Your task to perform on an android device: toggle notifications settings in the gmail app Image 0: 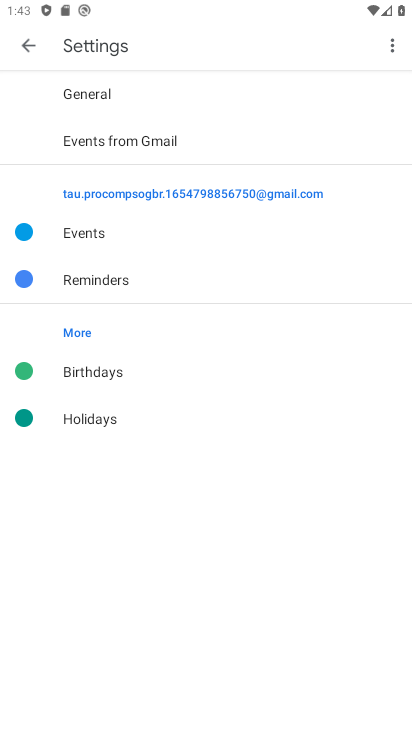
Step 0: press home button
Your task to perform on an android device: toggle notifications settings in the gmail app Image 1: 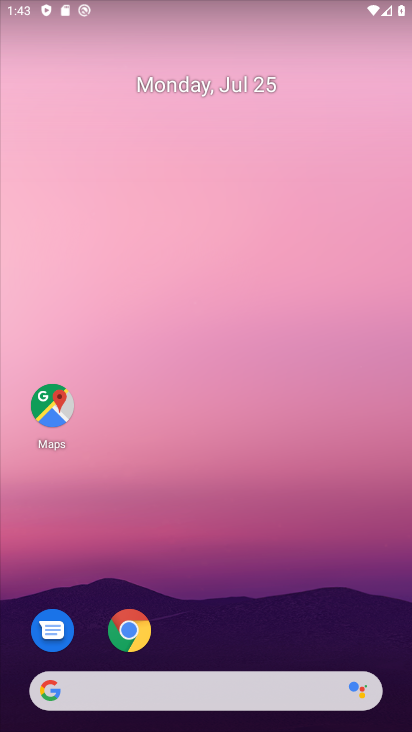
Step 1: click (237, 90)
Your task to perform on an android device: toggle notifications settings in the gmail app Image 2: 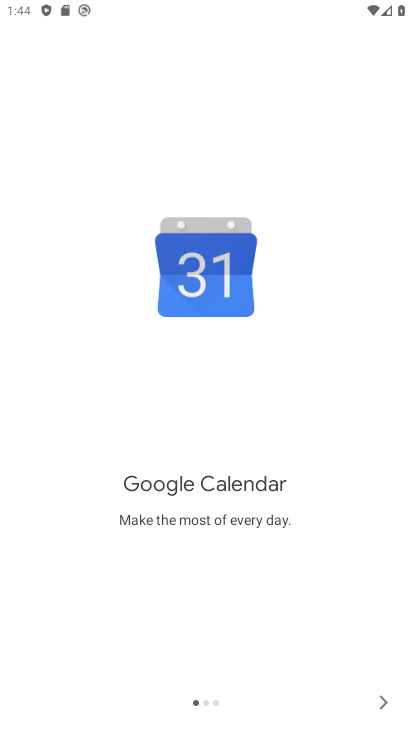
Step 2: press home button
Your task to perform on an android device: toggle notifications settings in the gmail app Image 3: 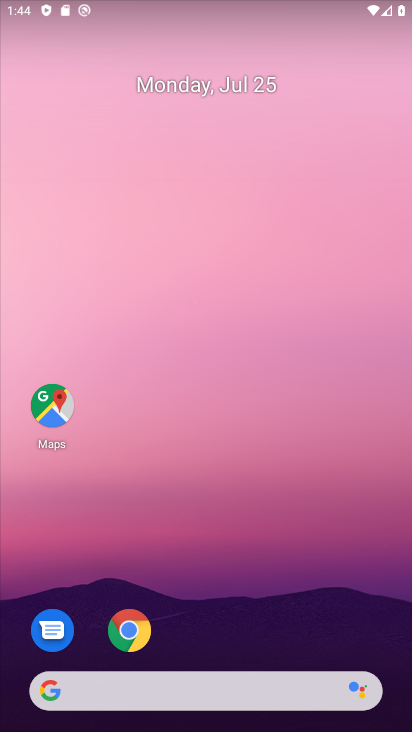
Step 3: drag from (326, 641) to (274, 27)
Your task to perform on an android device: toggle notifications settings in the gmail app Image 4: 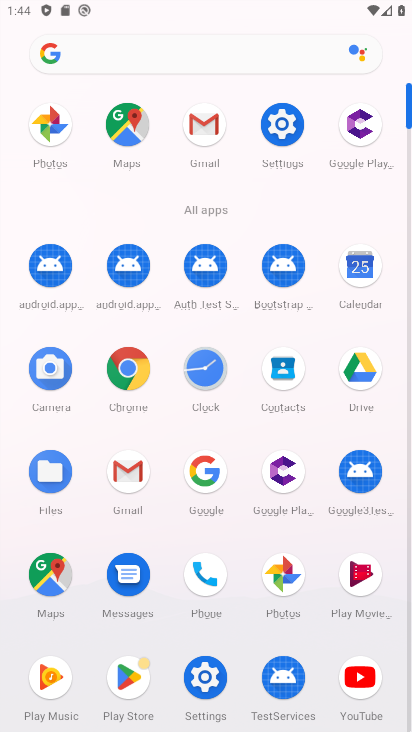
Step 4: click (211, 157)
Your task to perform on an android device: toggle notifications settings in the gmail app Image 5: 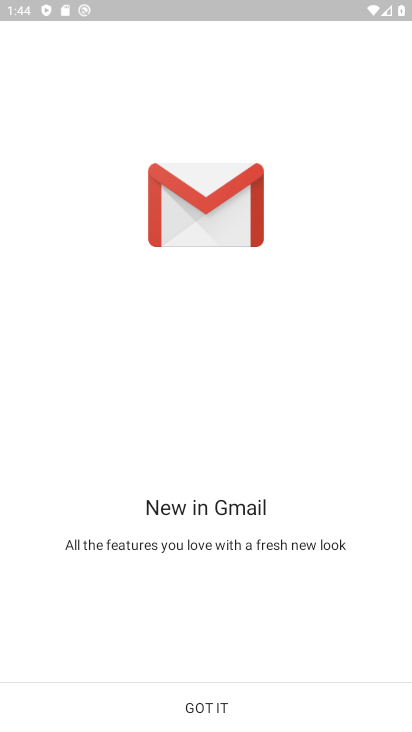
Step 5: click (213, 710)
Your task to perform on an android device: toggle notifications settings in the gmail app Image 6: 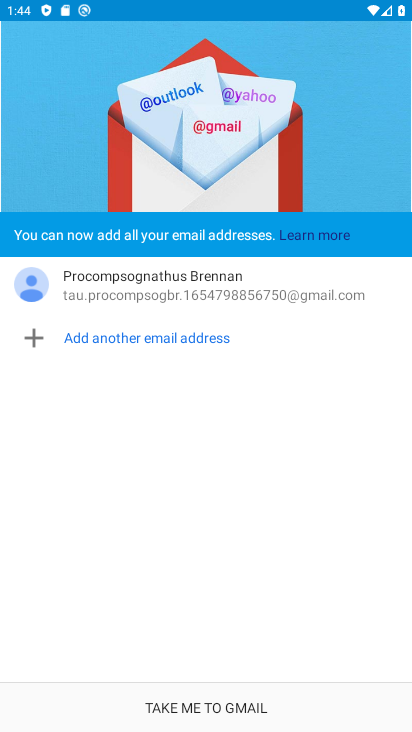
Step 6: click (213, 710)
Your task to perform on an android device: toggle notifications settings in the gmail app Image 7: 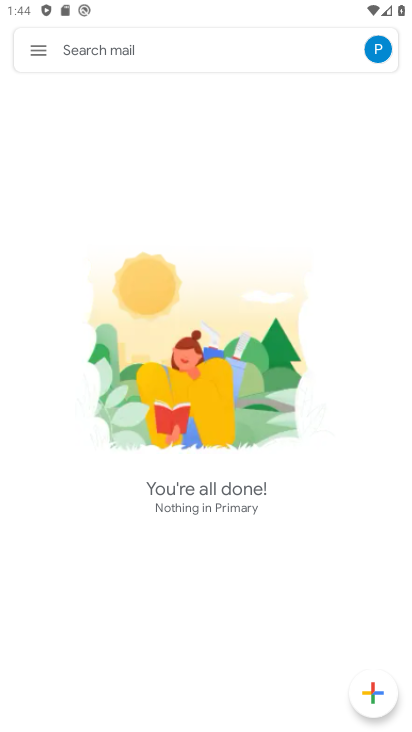
Step 7: click (34, 49)
Your task to perform on an android device: toggle notifications settings in the gmail app Image 8: 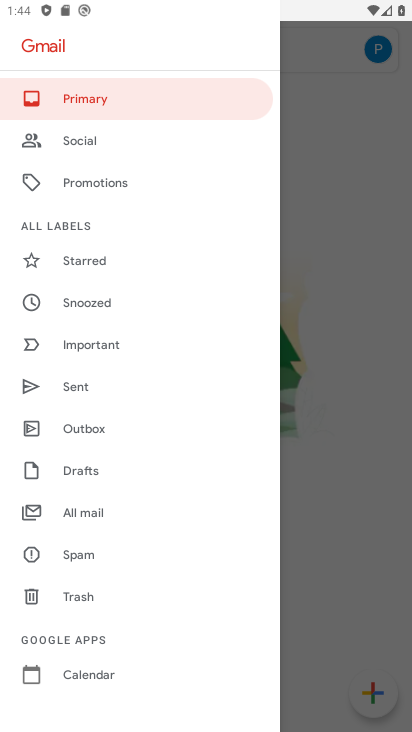
Step 8: drag from (162, 660) to (168, 196)
Your task to perform on an android device: toggle notifications settings in the gmail app Image 9: 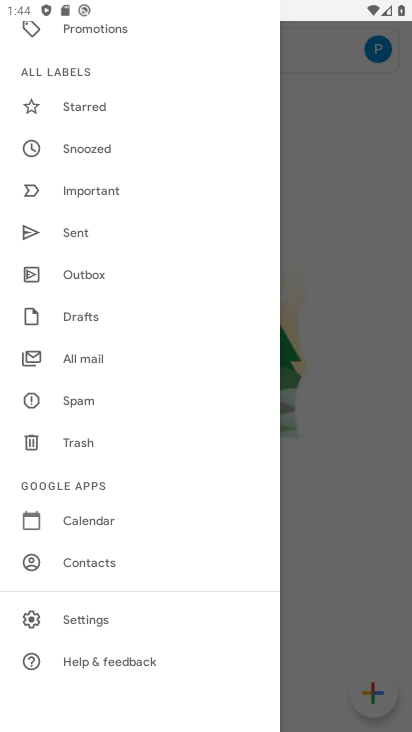
Step 9: click (134, 601)
Your task to perform on an android device: toggle notifications settings in the gmail app Image 10: 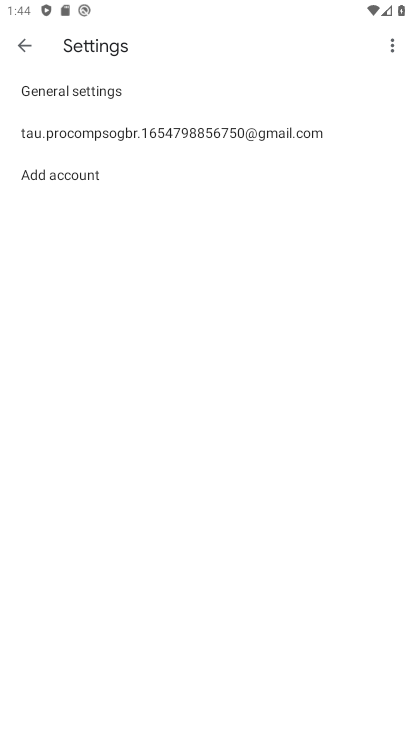
Step 10: click (213, 147)
Your task to perform on an android device: toggle notifications settings in the gmail app Image 11: 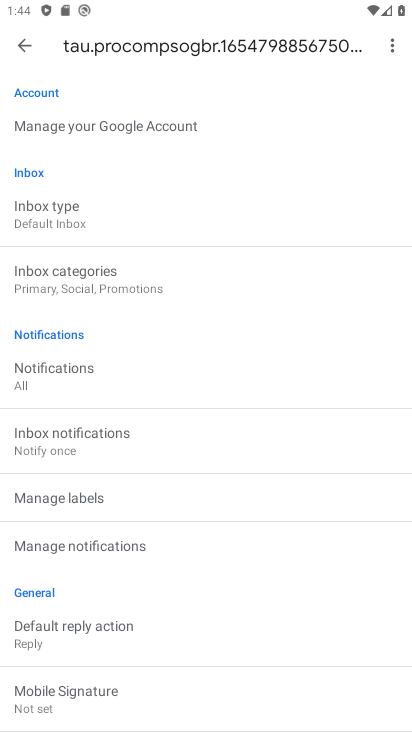
Step 11: click (230, 546)
Your task to perform on an android device: toggle notifications settings in the gmail app Image 12: 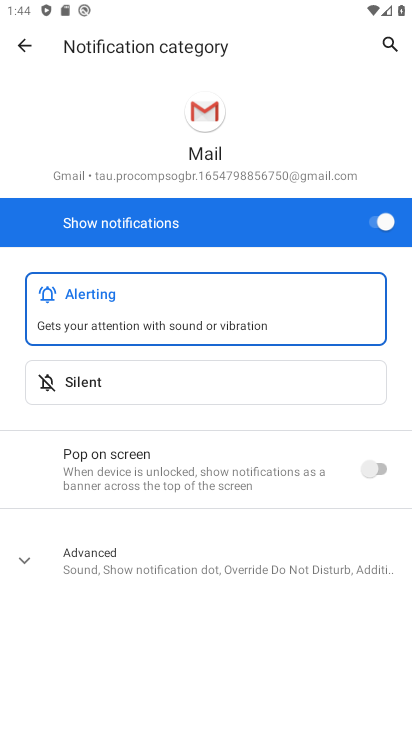
Step 12: click (284, 386)
Your task to perform on an android device: toggle notifications settings in the gmail app Image 13: 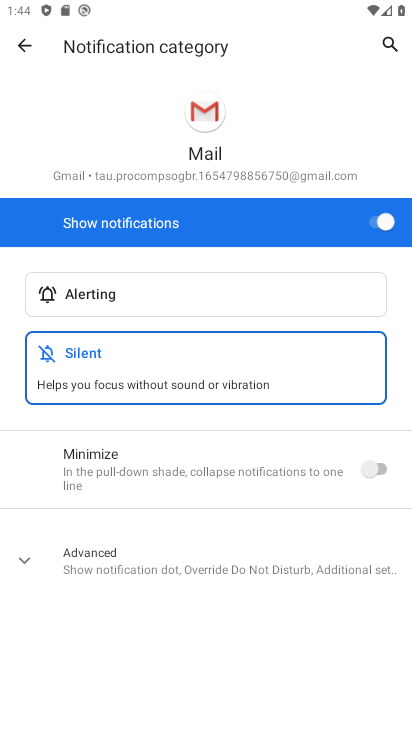
Step 13: click (381, 463)
Your task to perform on an android device: toggle notifications settings in the gmail app Image 14: 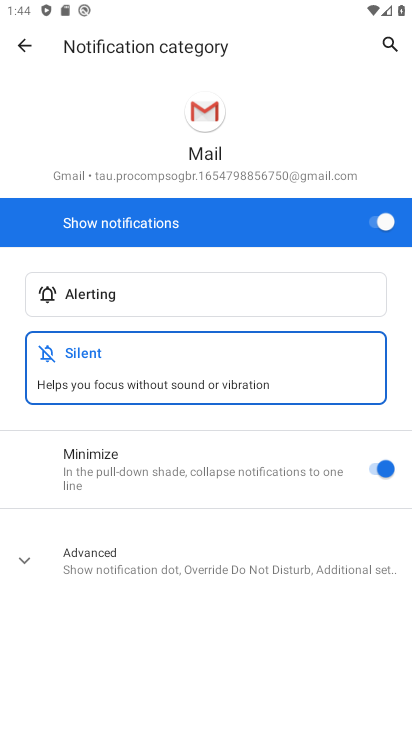
Step 14: task complete